Your task to perform on an android device: turn on airplane mode Image 0: 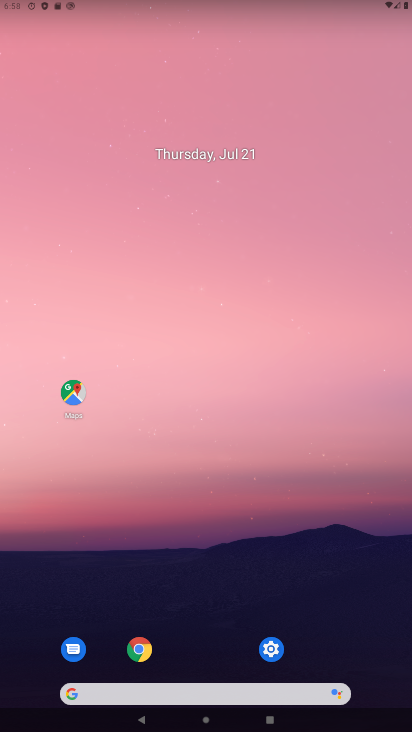
Step 0: drag from (273, 526) to (320, 133)
Your task to perform on an android device: turn on airplane mode Image 1: 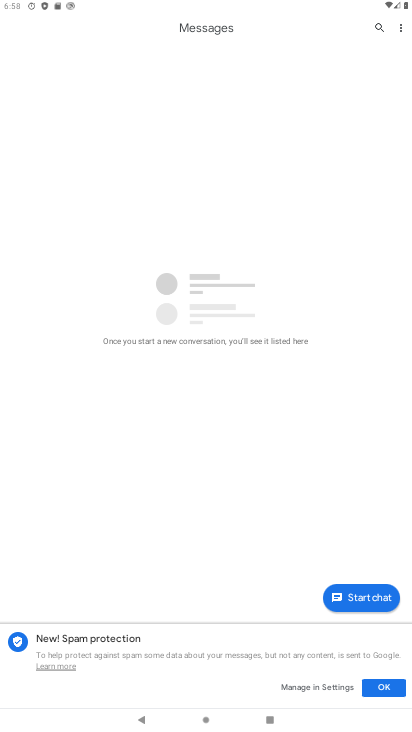
Step 1: press home button
Your task to perform on an android device: turn on airplane mode Image 2: 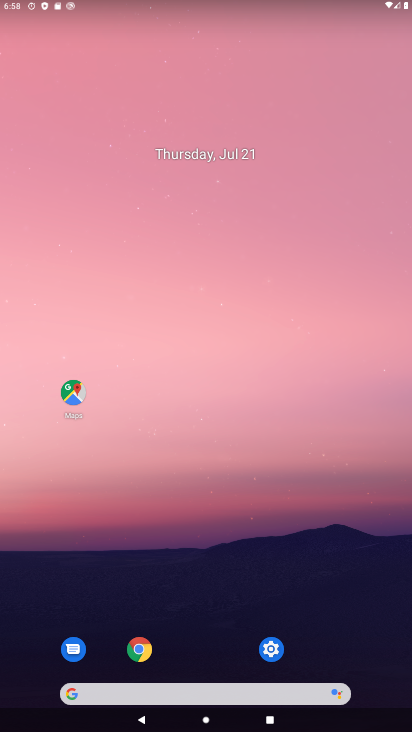
Step 2: drag from (203, 699) to (248, 250)
Your task to perform on an android device: turn on airplane mode Image 3: 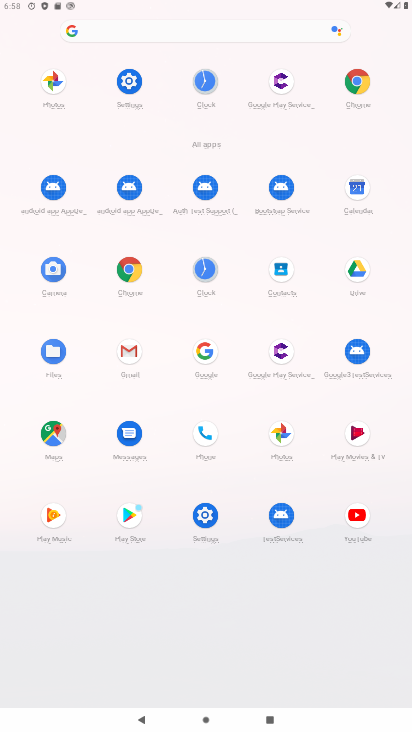
Step 3: click (138, 80)
Your task to perform on an android device: turn on airplane mode Image 4: 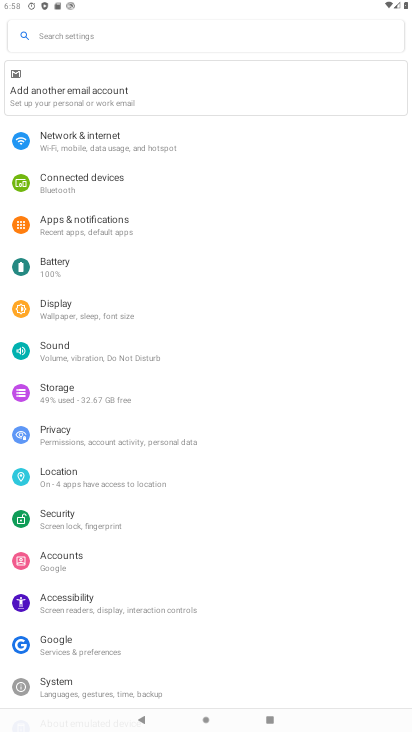
Step 4: click (129, 155)
Your task to perform on an android device: turn on airplane mode Image 5: 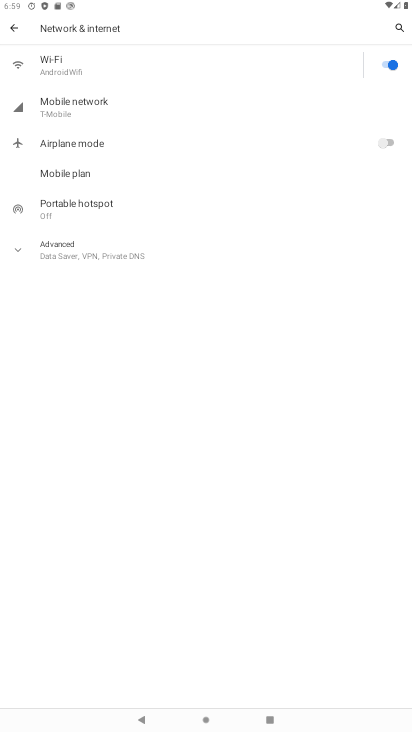
Step 5: click (80, 141)
Your task to perform on an android device: turn on airplane mode Image 6: 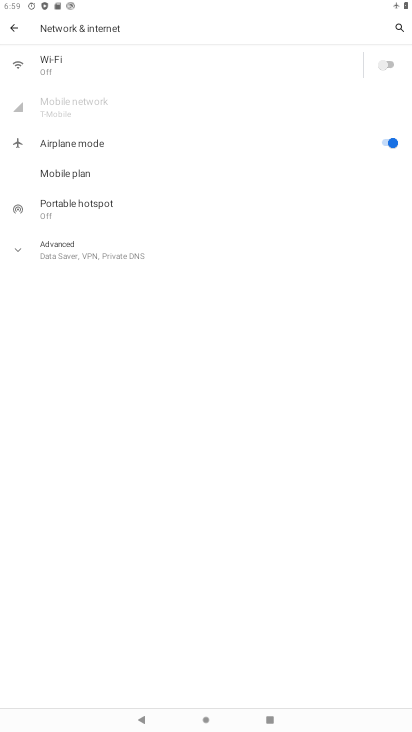
Step 6: task complete